Your task to perform on an android device: see sites visited before in the chrome app Image 0: 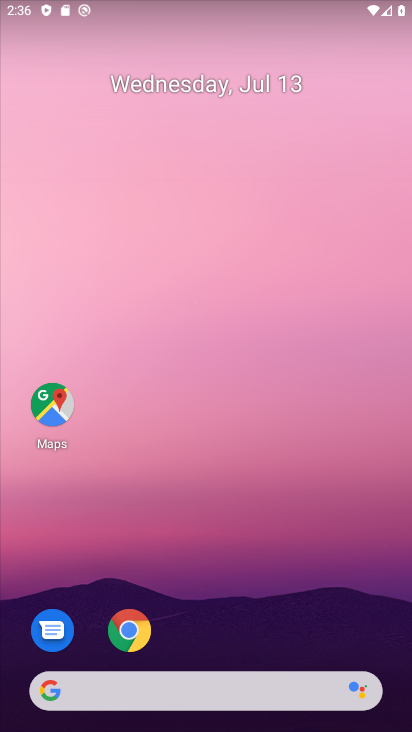
Step 0: click (139, 631)
Your task to perform on an android device: see sites visited before in the chrome app Image 1: 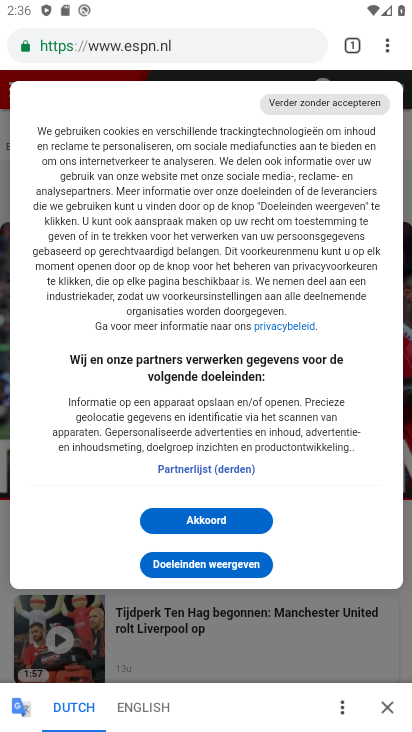
Step 1: click (388, 52)
Your task to perform on an android device: see sites visited before in the chrome app Image 2: 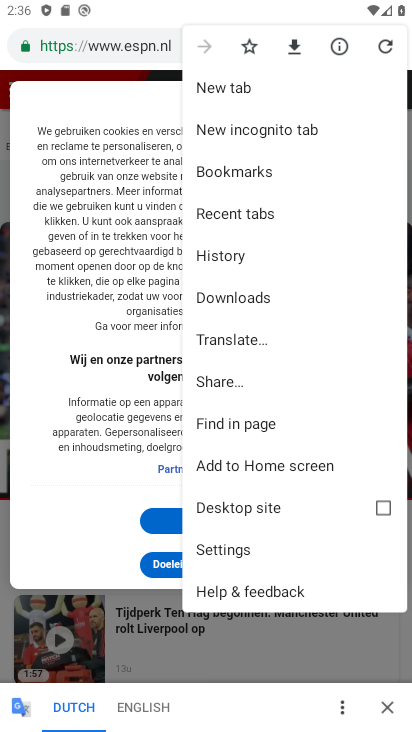
Step 2: click (238, 260)
Your task to perform on an android device: see sites visited before in the chrome app Image 3: 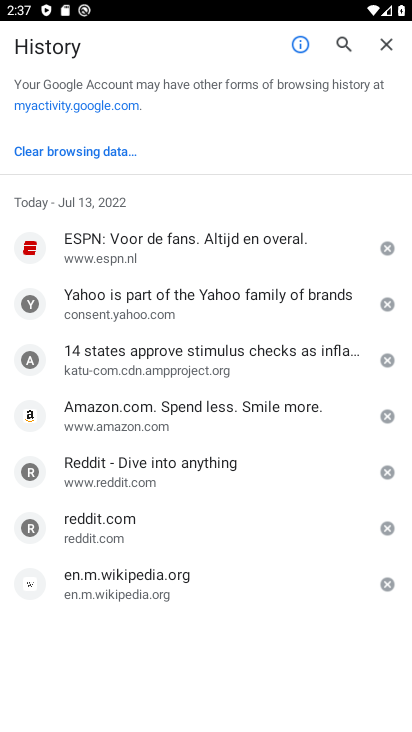
Step 3: task complete